Your task to perform on an android device: Open Chrome and go to settings Image 0: 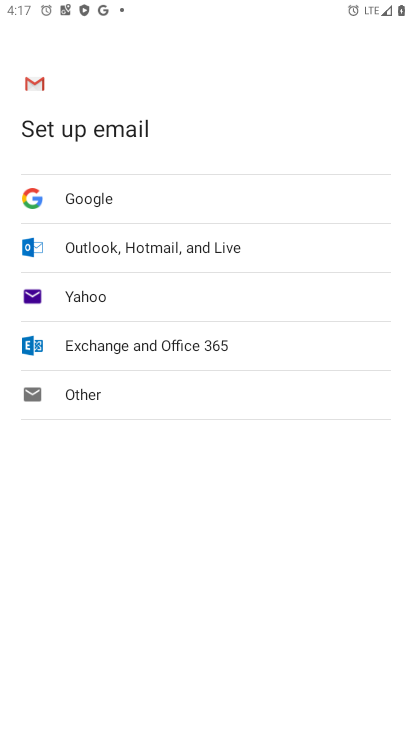
Step 0: press home button
Your task to perform on an android device: Open Chrome and go to settings Image 1: 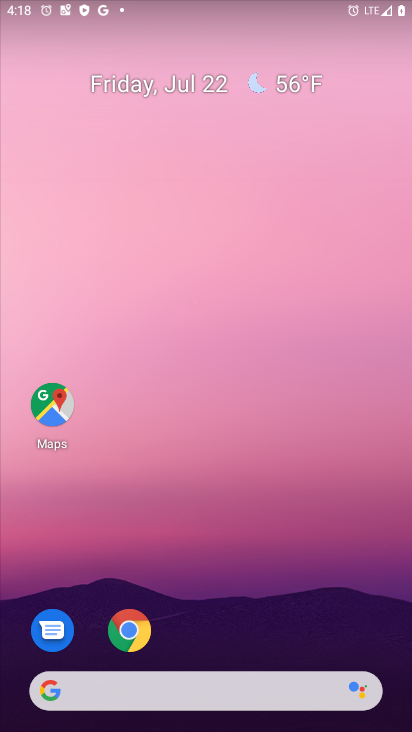
Step 1: click (127, 643)
Your task to perform on an android device: Open Chrome and go to settings Image 2: 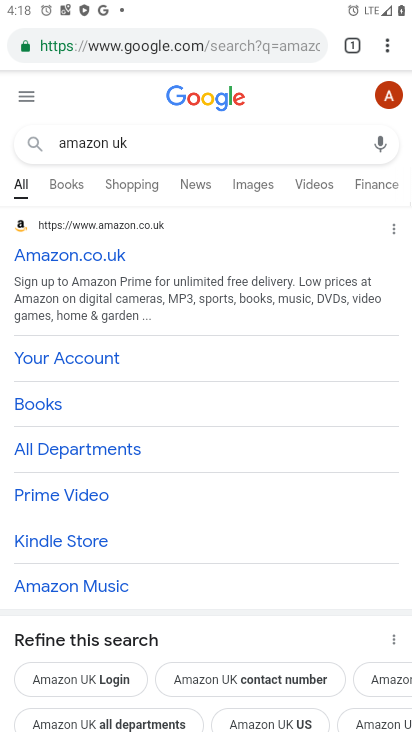
Step 2: task complete